Your task to perform on an android device: turn on bluetooth scan Image 0: 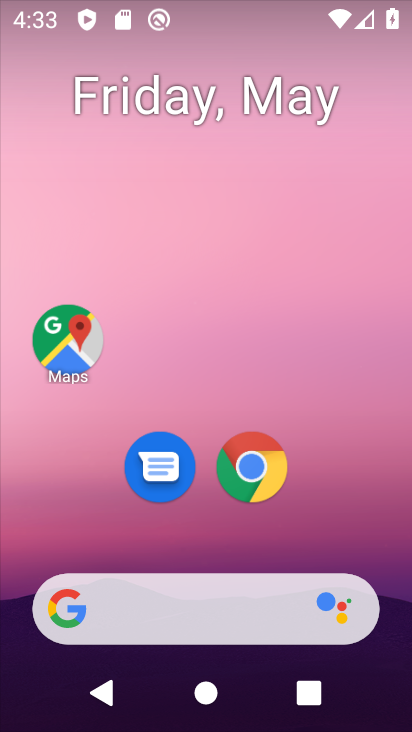
Step 0: drag from (336, 480) to (381, 69)
Your task to perform on an android device: turn on bluetooth scan Image 1: 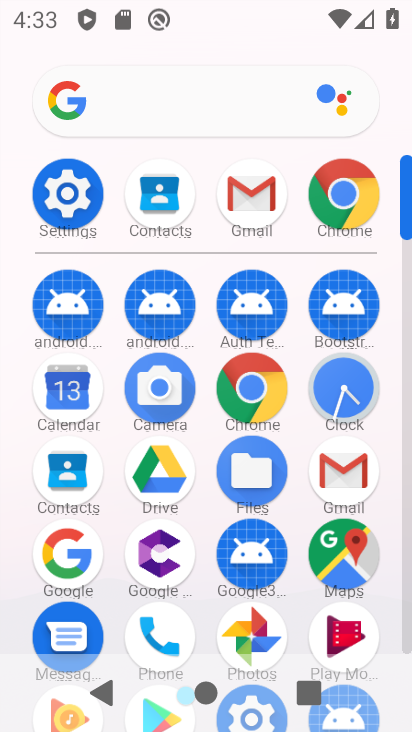
Step 1: click (63, 196)
Your task to perform on an android device: turn on bluetooth scan Image 2: 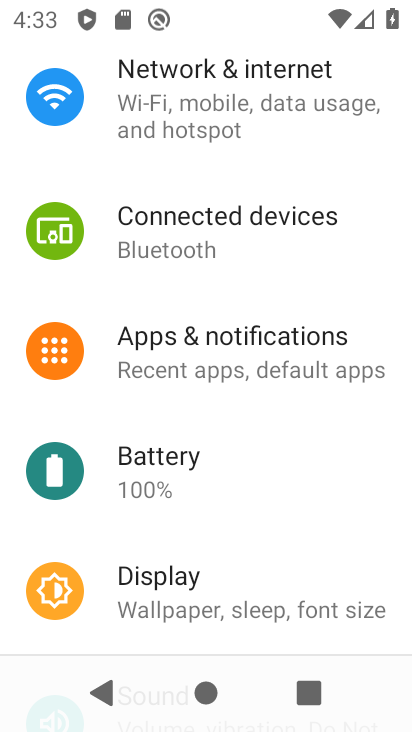
Step 2: drag from (309, 512) to (342, 118)
Your task to perform on an android device: turn on bluetooth scan Image 3: 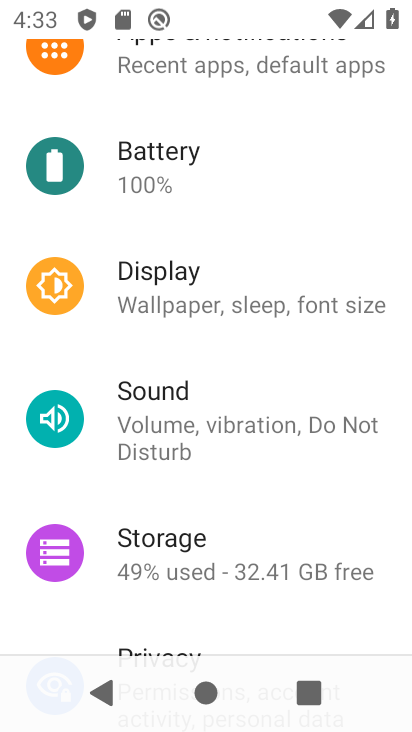
Step 3: drag from (239, 513) to (324, 213)
Your task to perform on an android device: turn on bluetooth scan Image 4: 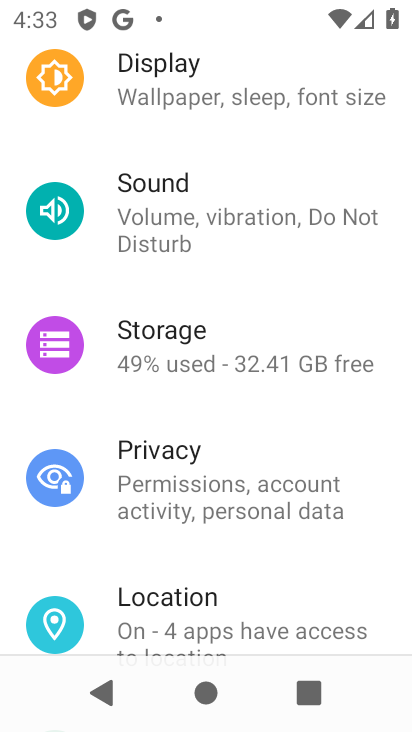
Step 4: click (187, 577)
Your task to perform on an android device: turn on bluetooth scan Image 5: 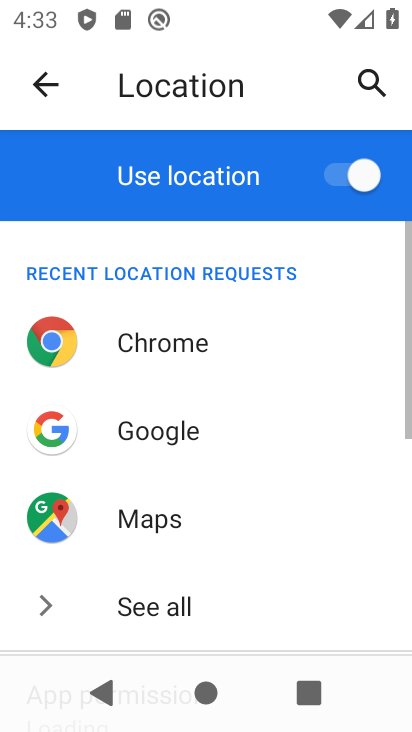
Step 5: drag from (279, 584) to (316, 165)
Your task to perform on an android device: turn on bluetooth scan Image 6: 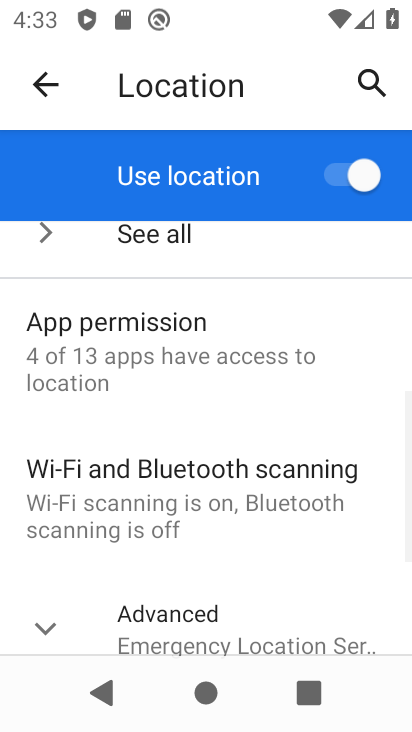
Step 6: click (239, 527)
Your task to perform on an android device: turn on bluetooth scan Image 7: 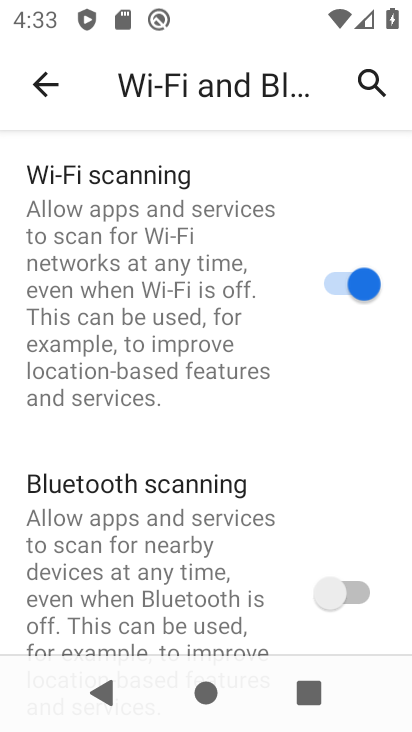
Step 7: click (318, 575)
Your task to perform on an android device: turn on bluetooth scan Image 8: 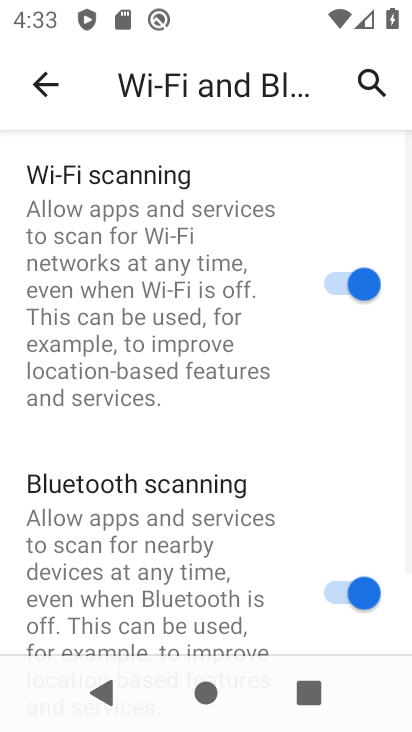
Step 8: task complete